Your task to perform on an android device: toggle sleep mode Image 0: 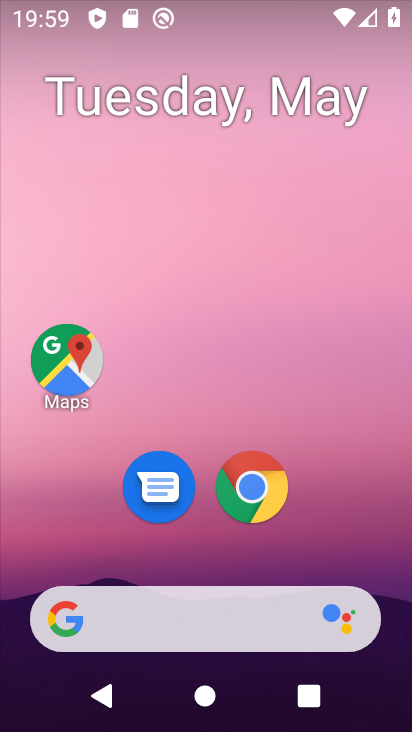
Step 0: drag from (328, 551) to (328, 43)
Your task to perform on an android device: toggle sleep mode Image 1: 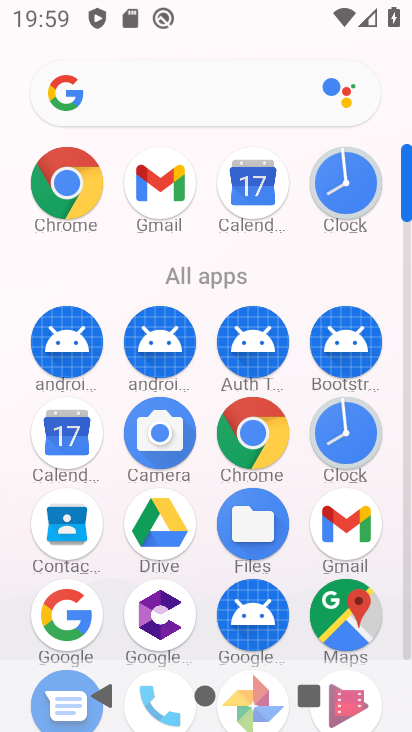
Step 1: click (406, 647)
Your task to perform on an android device: toggle sleep mode Image 2: 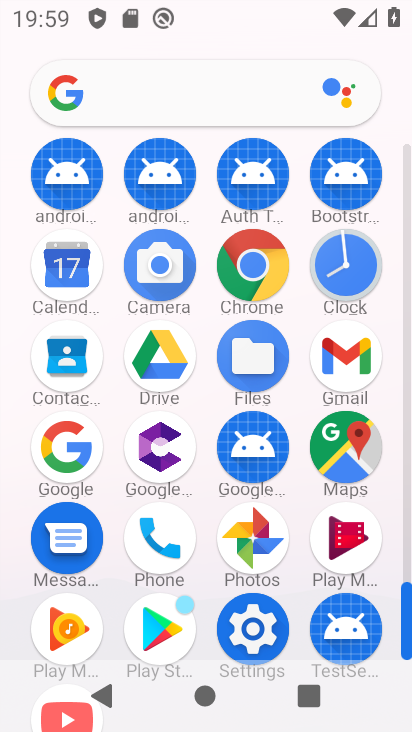
Step 2: click (260, 646)
Your task to perform on an android device: toggle sleep mode Image 3: 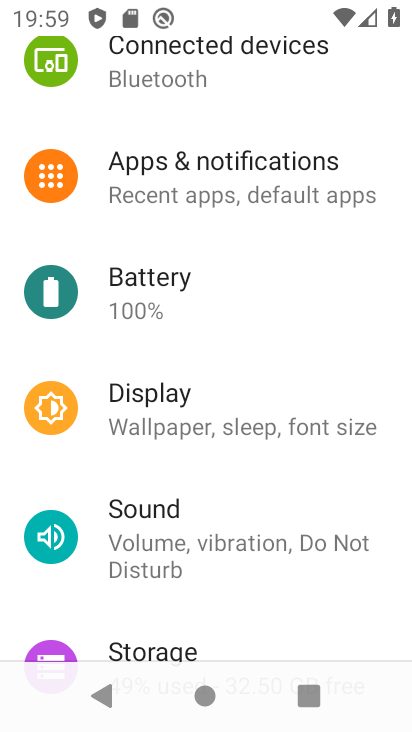
Step 3: click (257, 438)
Your task to perform on an android device: toggle sleep mode Image 4: 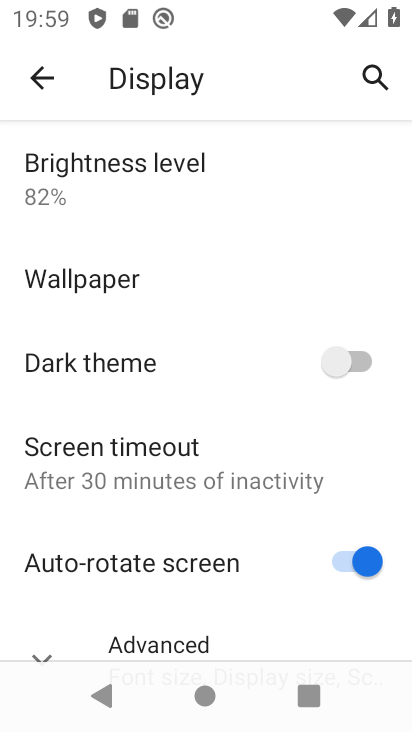
Step 4: drag from (236, 463) to (210, 226)
Your task to perform on an android device: toggle sleep mode Image 5: 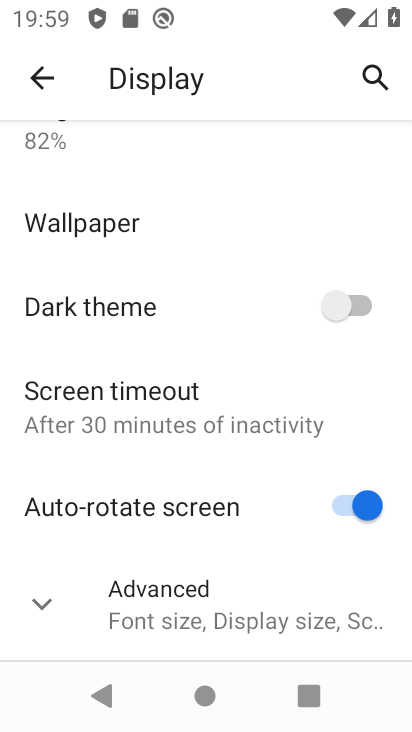
Step 5: click (216, 452)
Your task to perform on an android device: toggle sleep mode Image 6: 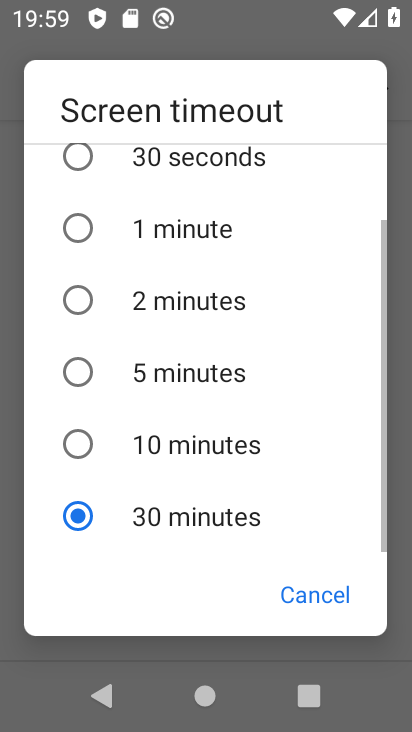
Step 6: click (169, 267)
Your task to perform on an android device: toggle sleep mode Image 7: 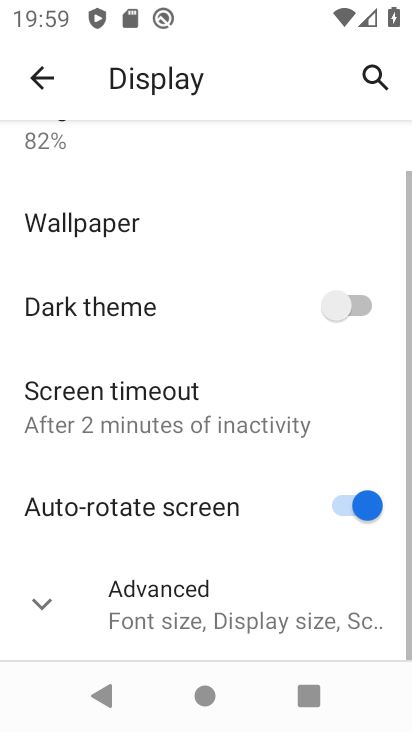
Step 7: task complete